Your task to perform on an android device: turn off airplane mode Image 0: 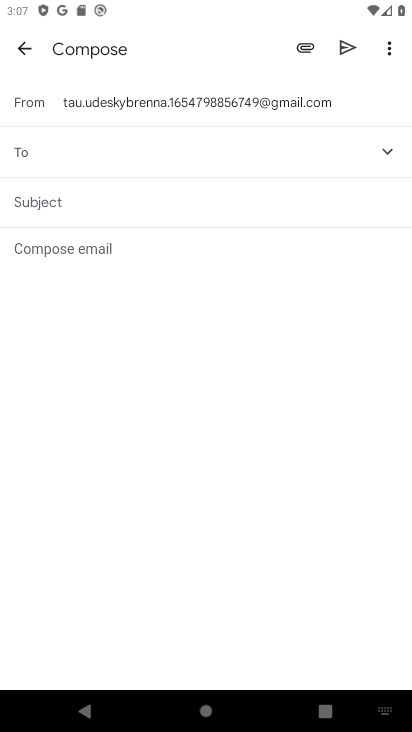
Step 0: press home button
Your task to perform on an android device: turn off airplane mode Image 1: 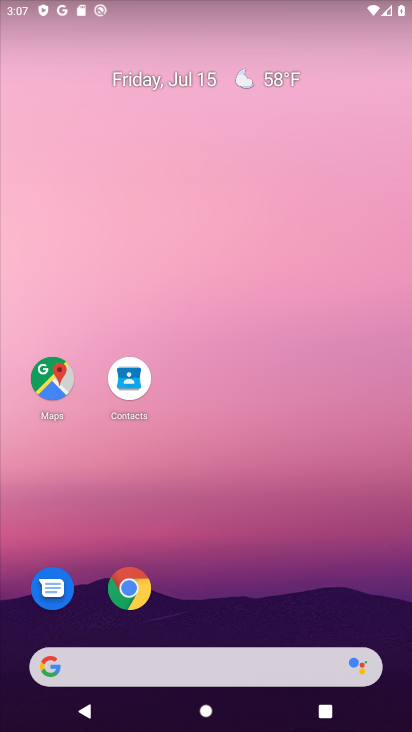
Step 1: drag from (303, 572) to (266, 173)
Your task to perform on an android device: turn off airplane mode Image 2: 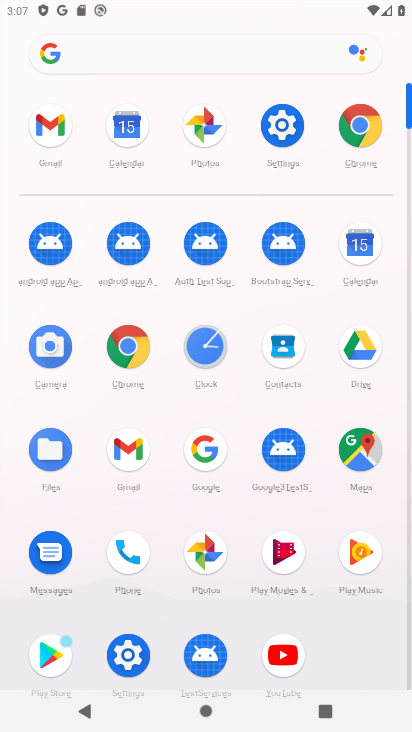
Step 2: click (283, 161)
Your task to perform on an android device: turn off airplane mode Image 3: 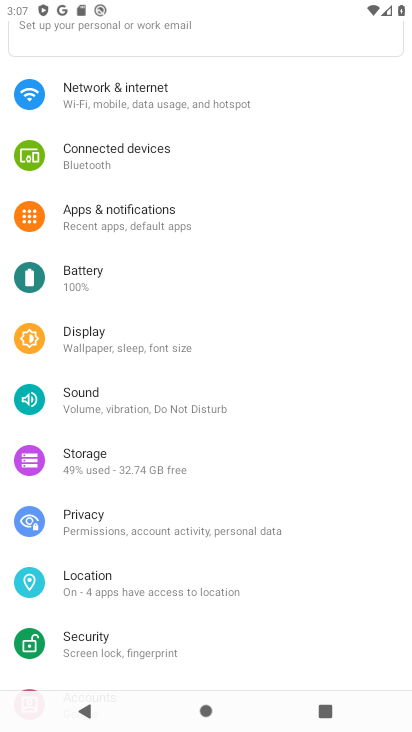
Step 3: click (228, 116)
Your task to perform on an android device: turn off airplane mode Image 4: 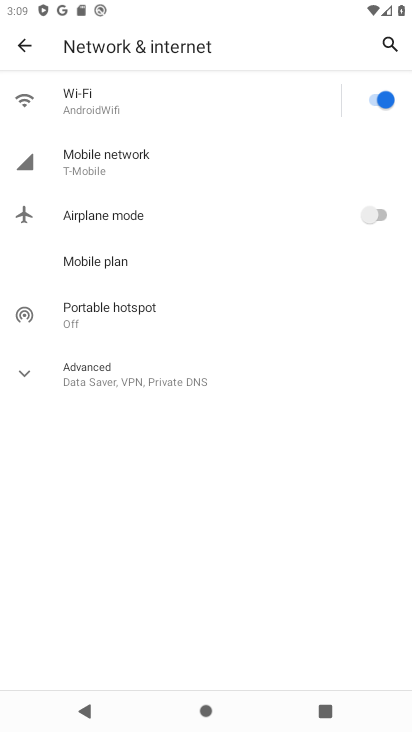
Step 4: task complete